Your task to perform on an android device: Show me popular videos on Youtube Image 0: 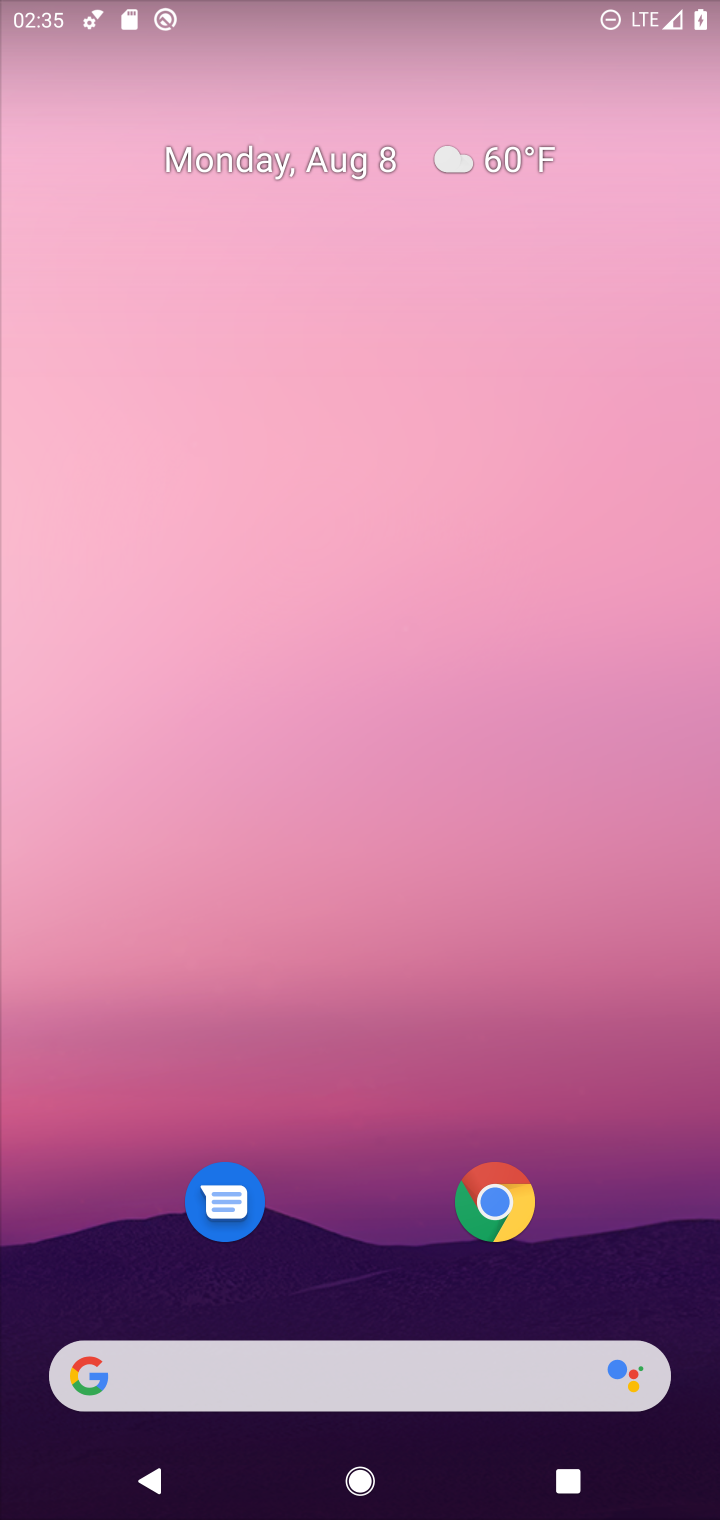
Step 0: press home button
Your task to perform on an android device: Show me popular videos on Youtube Image 1: 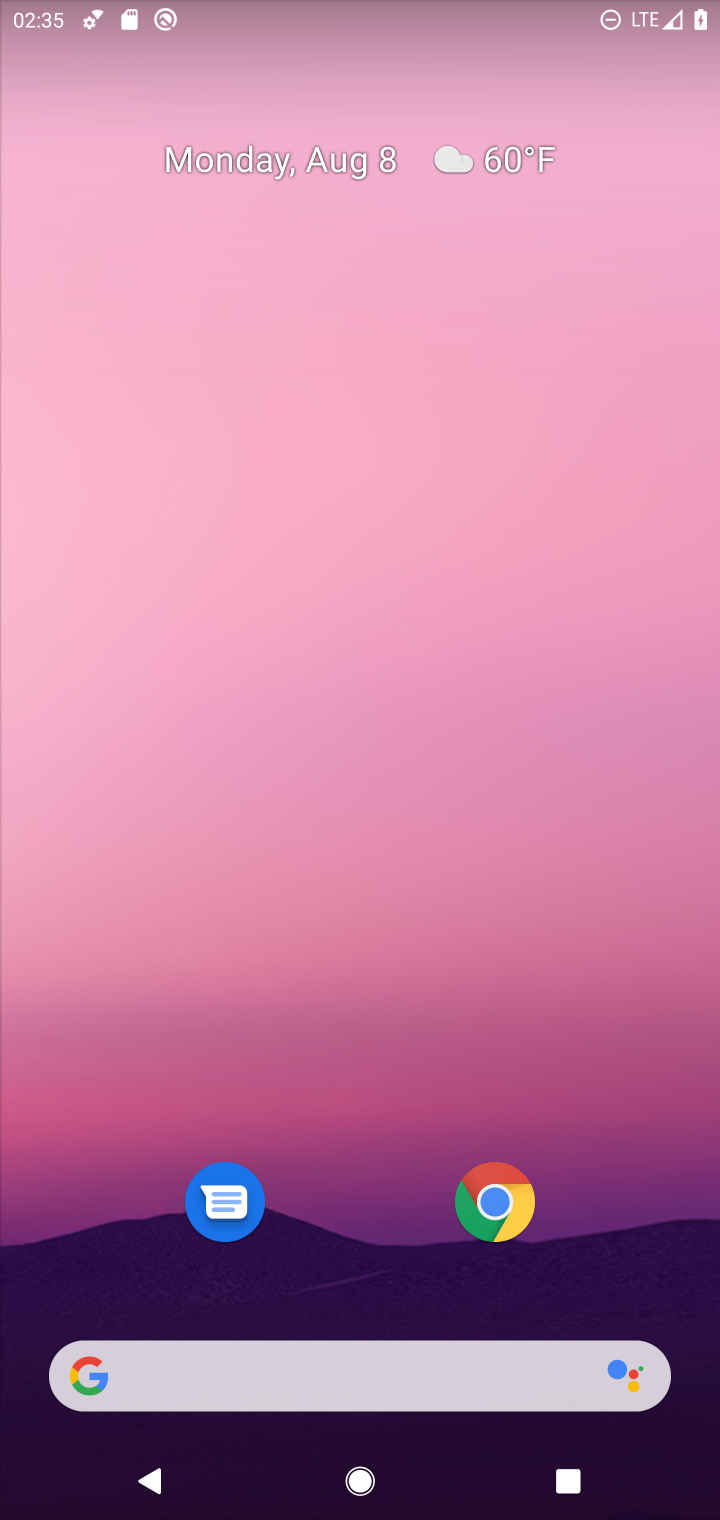
Step 1: drag from (612, 1260) to (651, 174)
Your task to perform on an android device: Show me popular videos on Youtube Image 2: 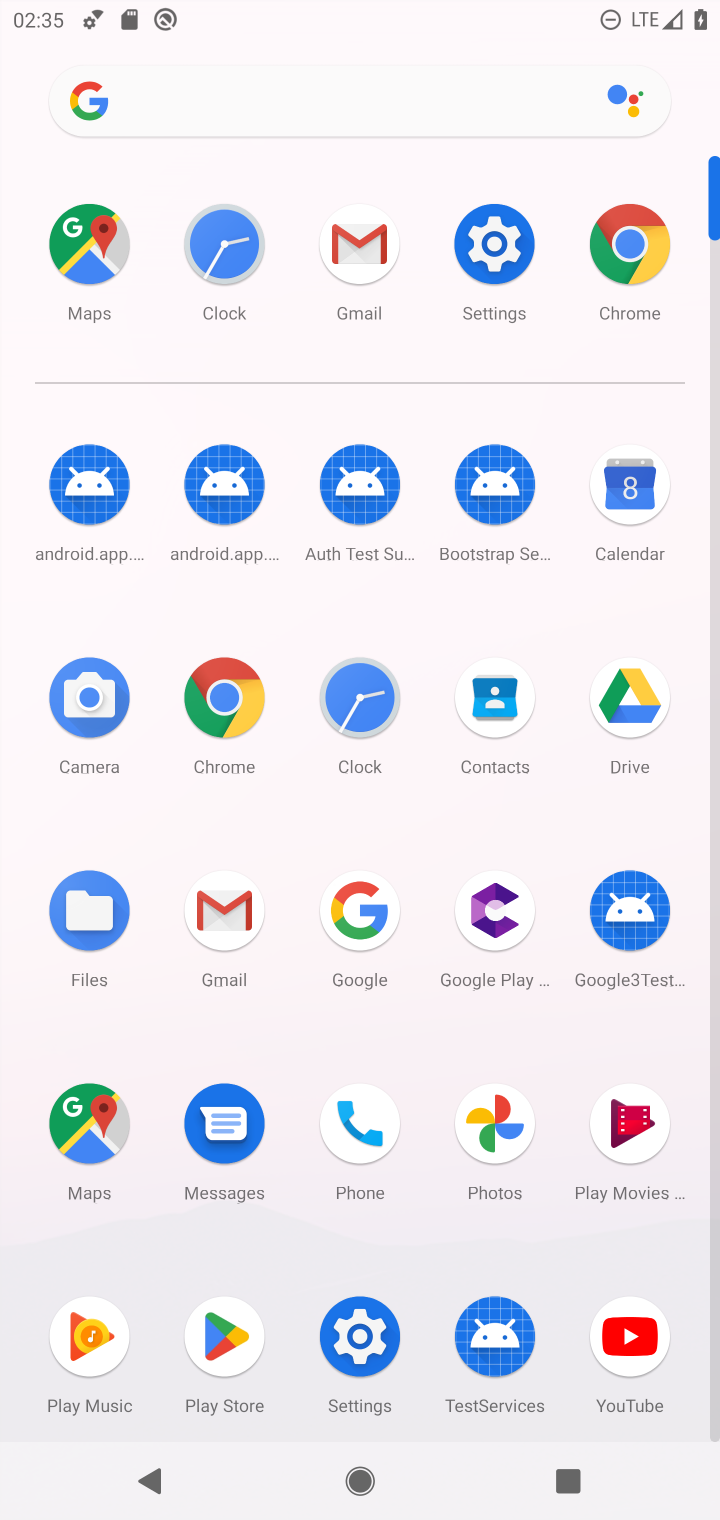
Step 2: click (640, 1359)
Your task to perform on an android device: Show me popular videos on Youtube Image 3: 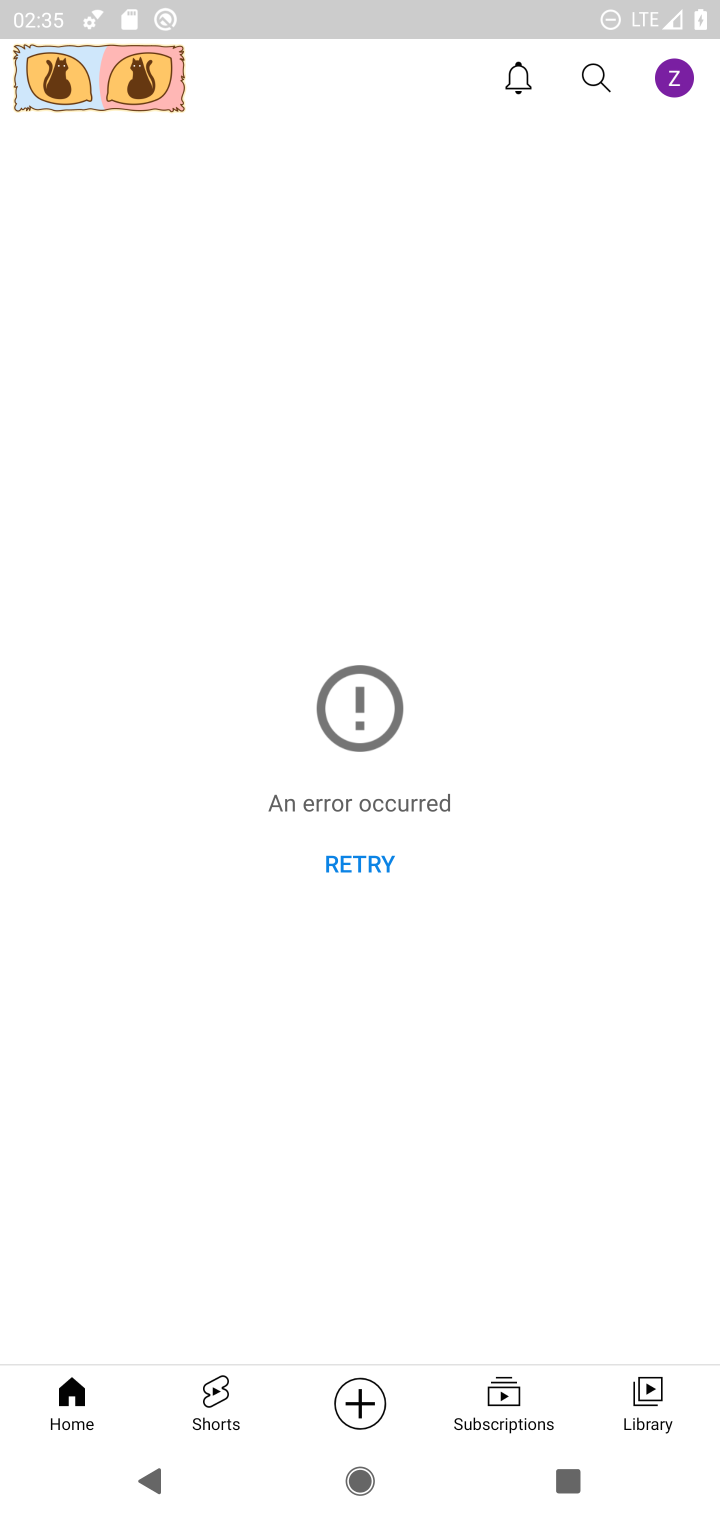
Step 3: click (58, 1408)
Your task to perform on an android device: Show me popular videos on Youtube Image 4: 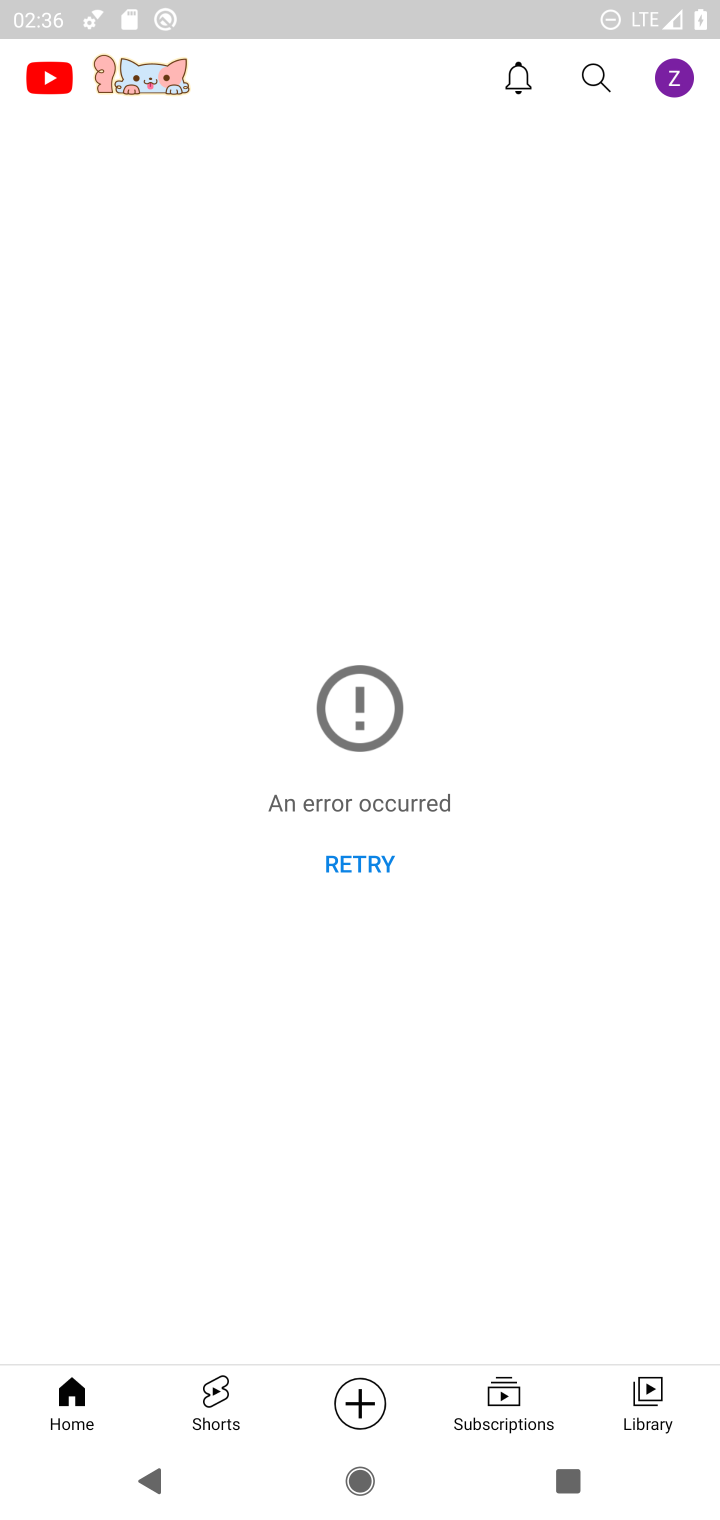
Step 4: task complete